Your task to perform on an android device: change keyboard looks Image 0: 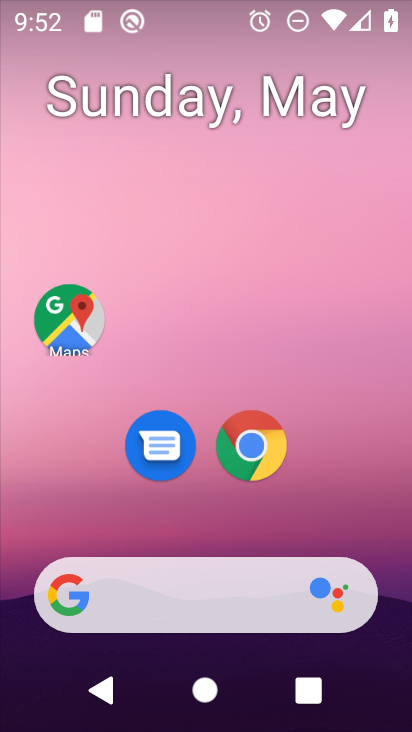
Step 0: drag from (246, 561) to (219, 94)
Your task to perform on an android device: change keyboard looks Image 1: 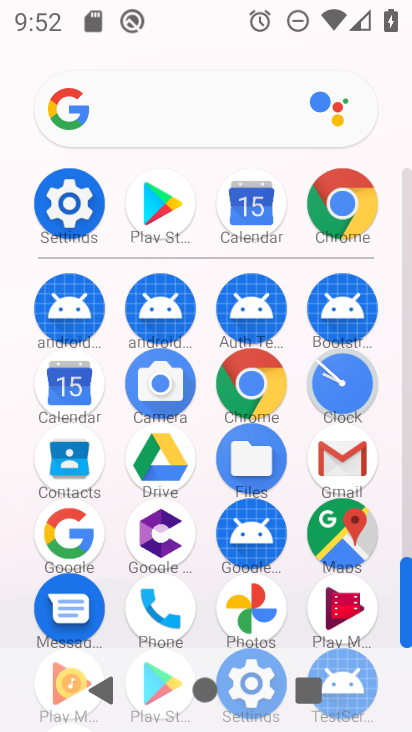
Step 1: drag from (201, 444) to (207, 204)
Your task to perform on an android device: change keyboard looks Image 2: 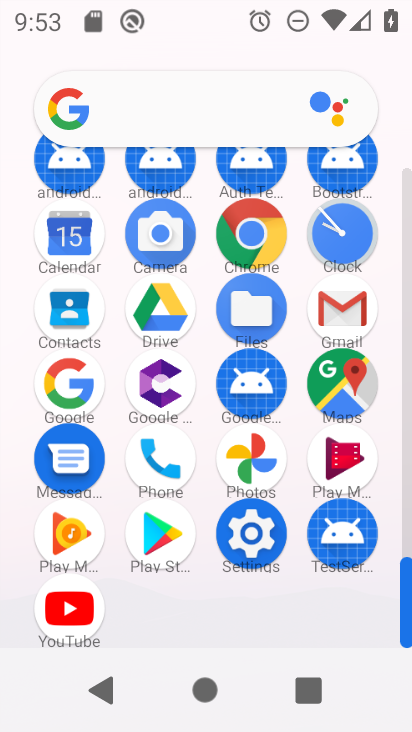
Step 2: click (249, 537)
Your task to perform on an android device: change keyboard looks Image 3: 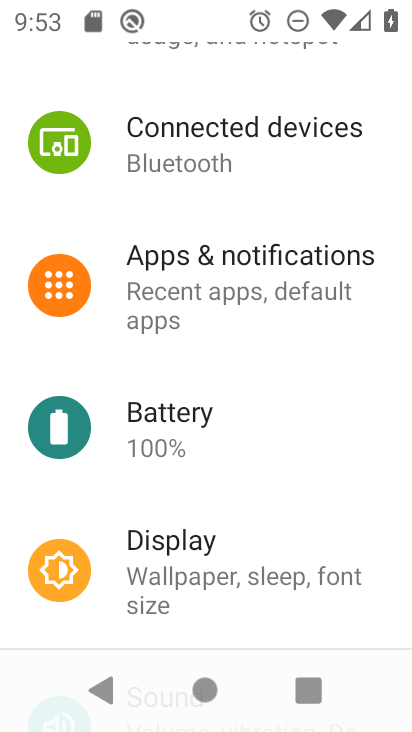
Step 3: drag from (200, 409) to (196, 280)
Your task to perform on an android device: change keyboard looks Image 4: 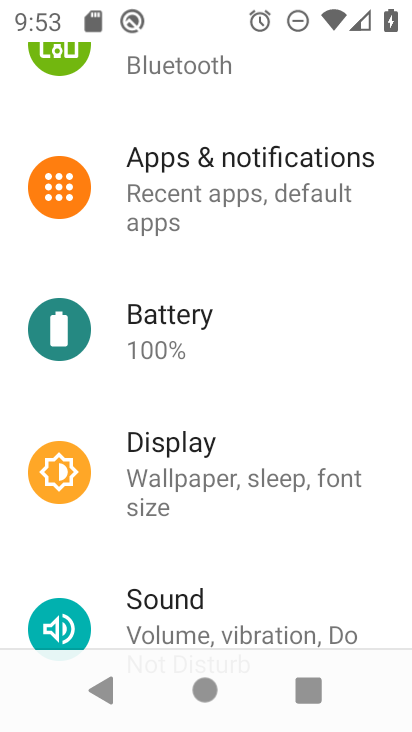
Step 4: drag from (188, 527) to (225, 230)
Your task to perform on an android device: change keyboard looks Image 5: 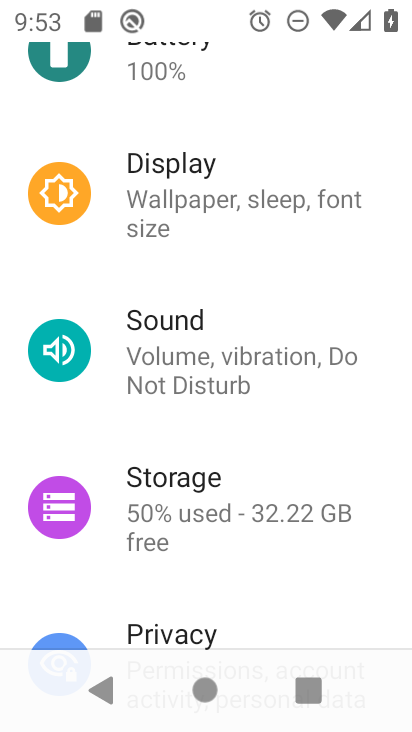
Step 5: drag from (230, 546) to (260, 348)
Your task to perform on an android device: change keyboard looks Image 6: 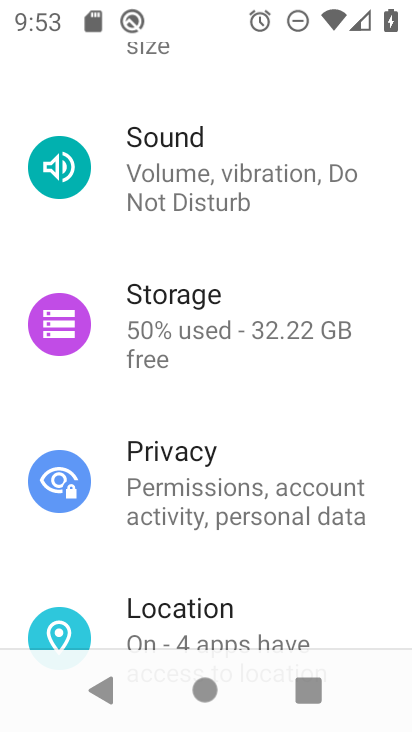
Step 6: drag from (246, 525) to (240, 250)
Your task to perform on an android device: change keyboard looks Image 7: 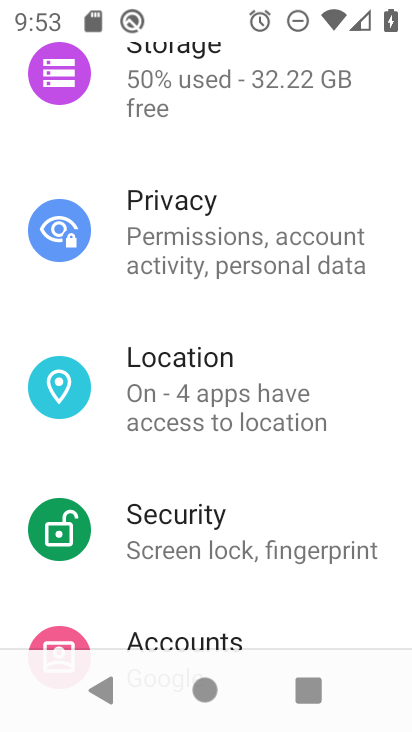
Step 7: drag from (217, 592) to (213, 310)
Your task to perform on an android device: change keyboard looks Image 8: 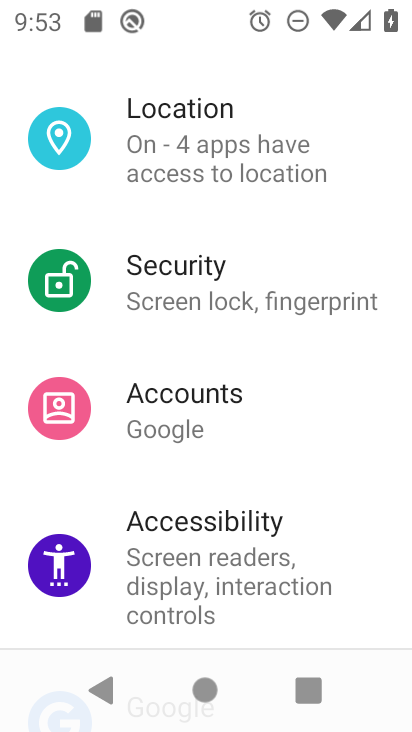
Step 8: drag from (204, 503) to (214, 244)
Your task to perform on an android device: change keyboard looks Image 9: 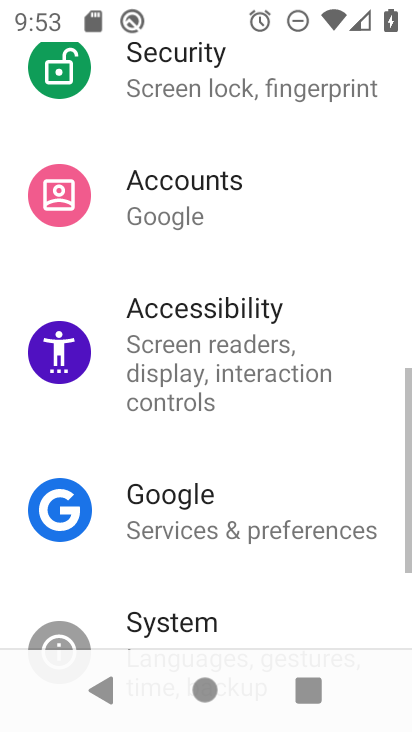
Step 9: drag from (212, 504) to (229, 253)
Your task to perform on an android device: change keyboard looks Image 10: 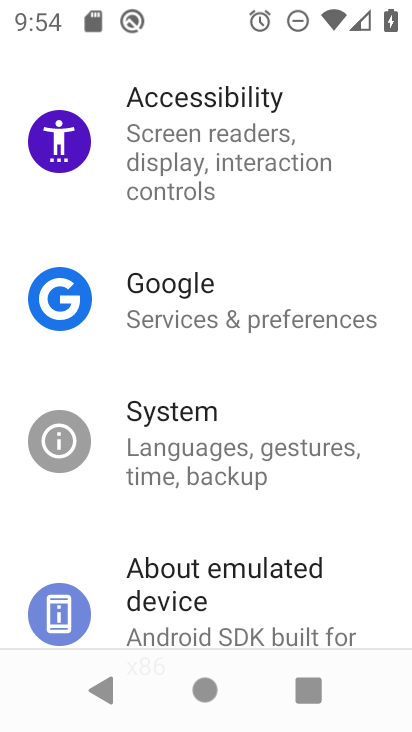
Step 10: click (197, 454)
Your task to perform on an android device: change keyboard looks Image 11: 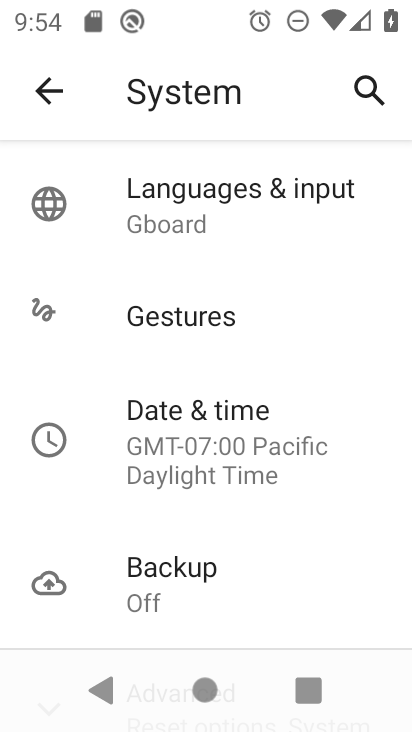
Step 11: drag from (211, 505) to (196, 302)
Your task to perform on an android device: change keyboard looks Image 12: 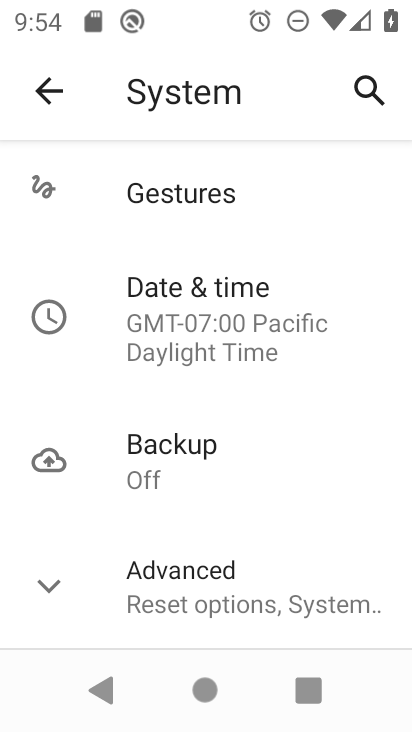
Step 12: click (57, 110)
Your task to perform on an android device: change keyboard looks Image 13: 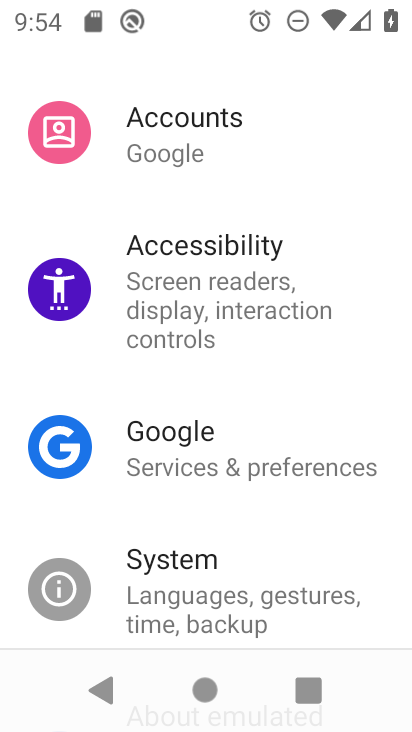
Step 13: click (197, 571)
Your task to perform on an android device: change keyboard looks Image 14: 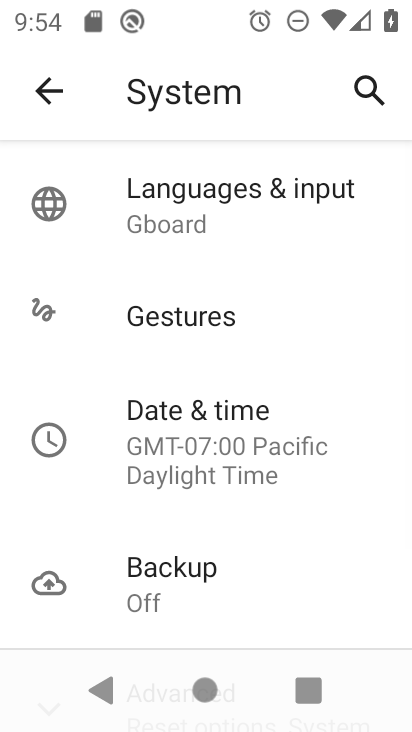
Step 14: click (181, 212)
Your task to perform on an android device: change keyboard looks Image 15: 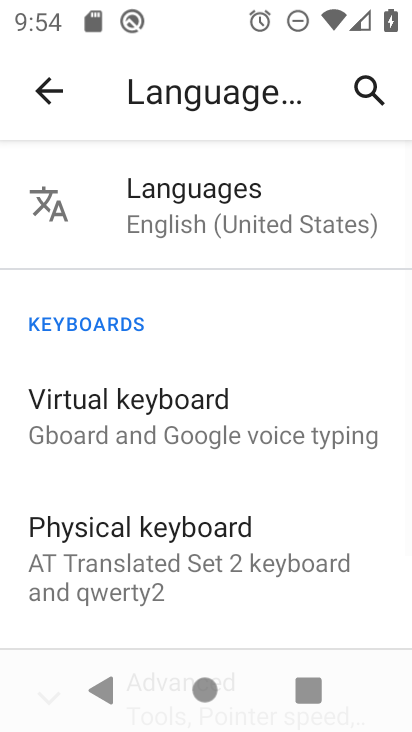
Step 15: click (198, 408)
Your task to perform on an android device: change keyboard looks Image 16: 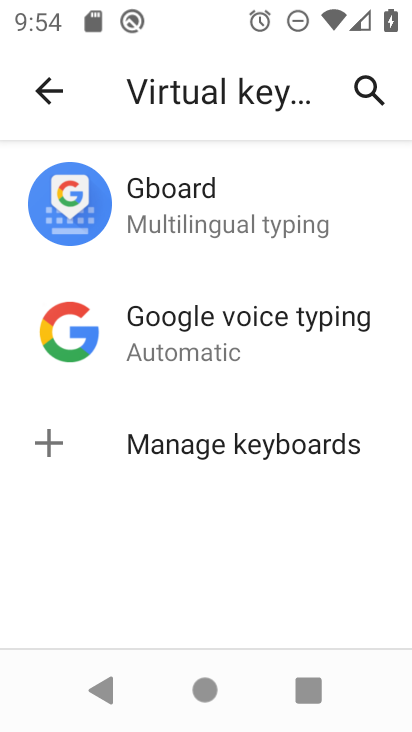
Step 16: click (240, 222)
Your task to perform on an android device: change keyboard looks Image 17: 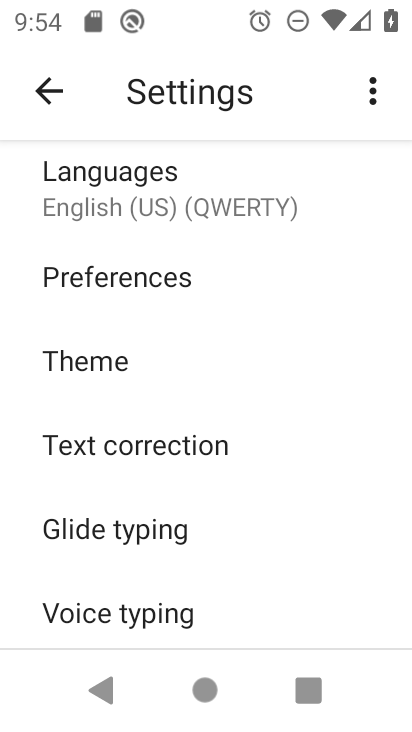
Step 17: click (118, 362)
Your task to perform on an android device: change keyboard looks Image 18: 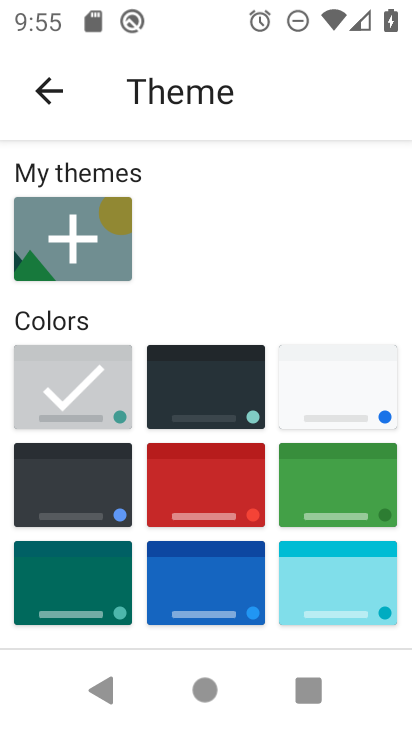
Step 18: click (188, 394)
Your task to perform on an android device: change keyboard looks Image 19: 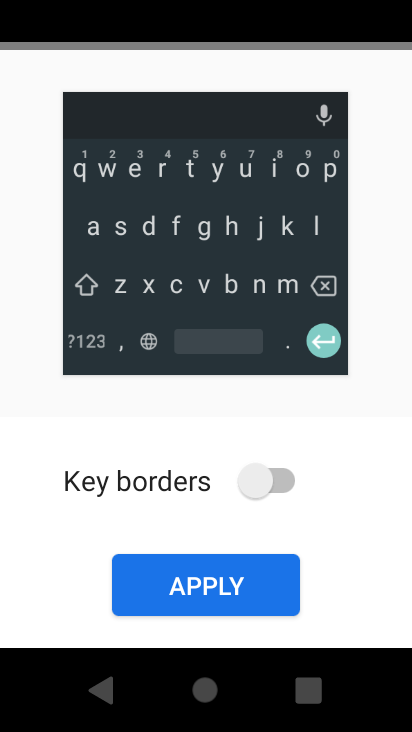
Step 19: click (214, 598)
Your task to perform on an android device: change keyboard looks Image 20: 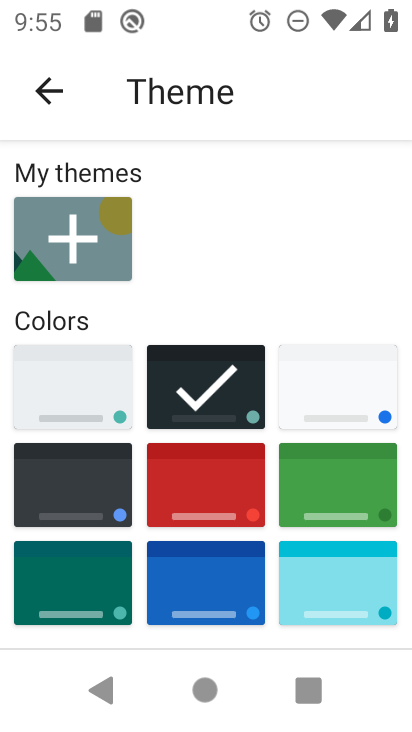
Step 20: task complete